Your task to perform on an android device: check android version Image 0: 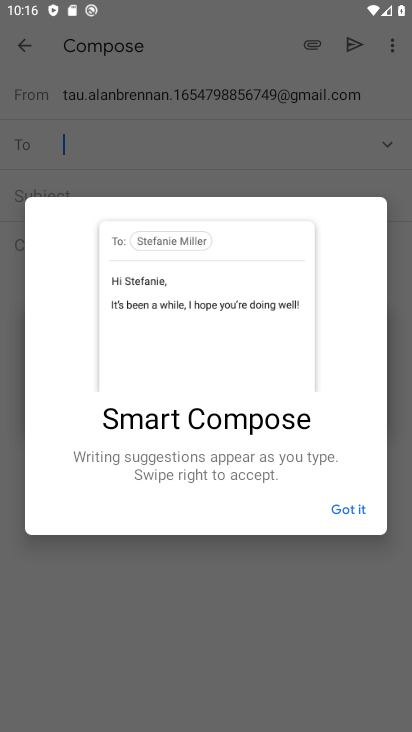
Step 0: press home button
Your task to perform on an android device: check android version Image 1: 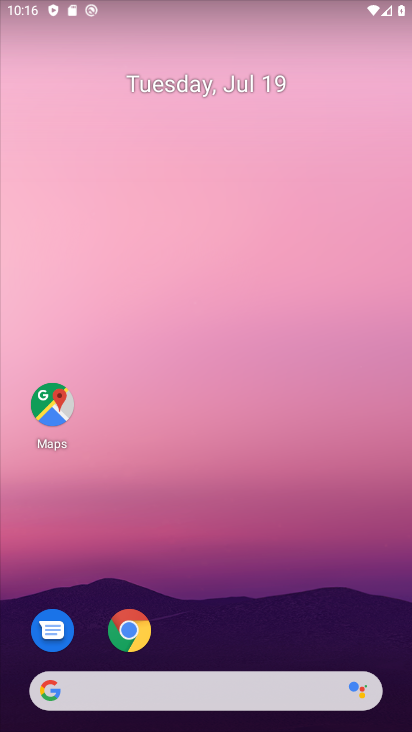
Step 1: drag from (178, 212) to (178, 143)
Your task to perform on an android device: check android version Image 2: 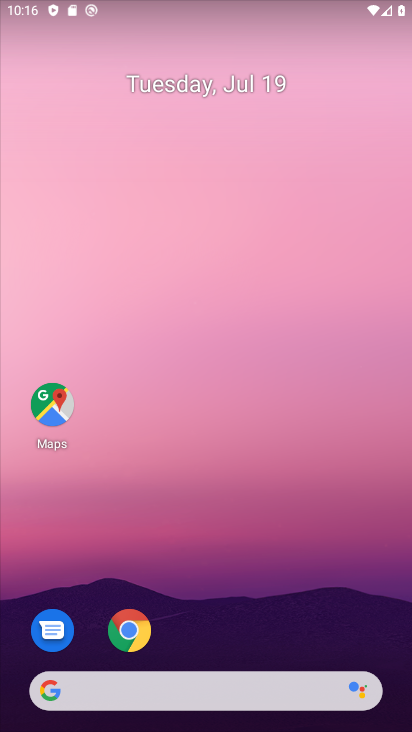
Step 2: drag from (161, 662) to (161, 136)
Your task to perform on an android device: check android version Image 3: 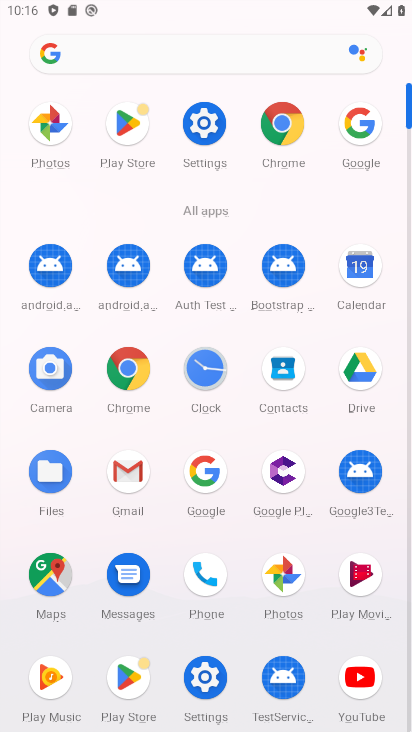
Step 3: click (200, 128)
Your task to perform on an android device: check android version Image 4: 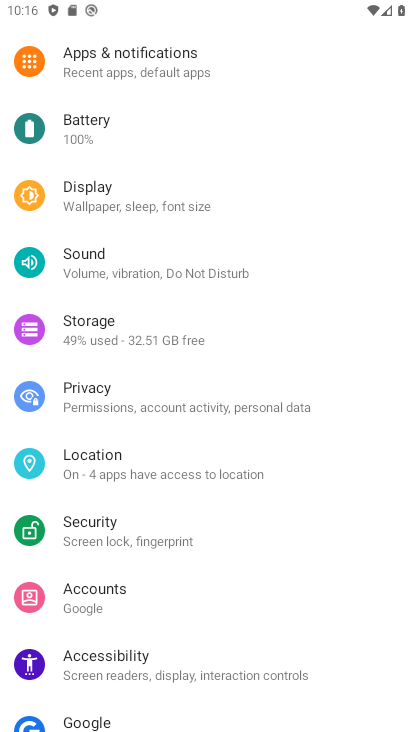
Step 4: drag from (128, 724) to (127, 228)
Your task to perform on an android device: check android version Image 5: 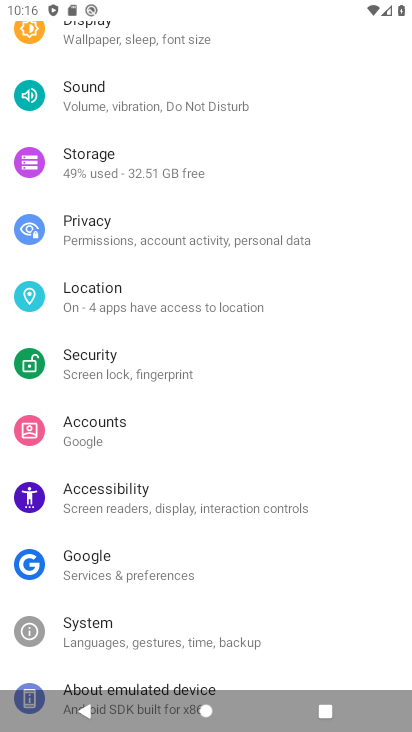
Step 5: drag from (133, 656) to (126, 273)
Your task to perform on an android device: check android version Image 6: 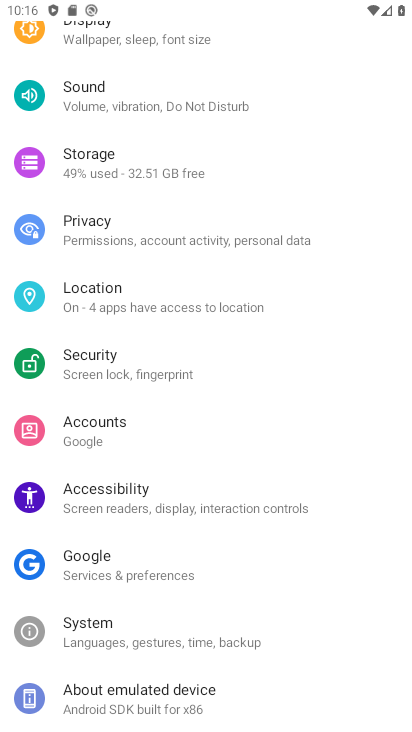
Step 6: click (130, 704)
Your task to perform on an android device: check android version Image 7: 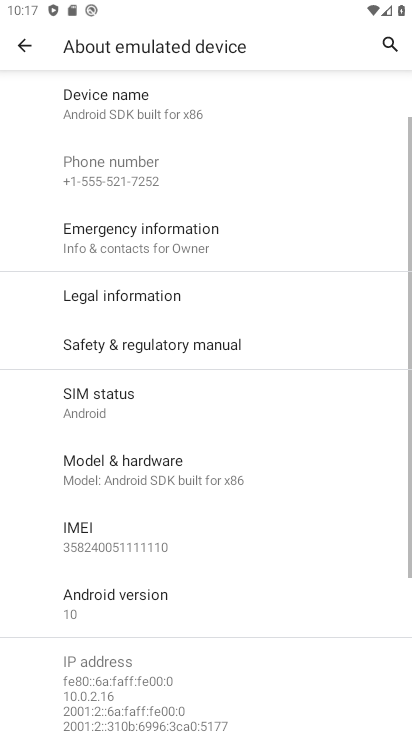
Step 7: click (114, 605)
Your task to perform on an android device: check android version Image 8: 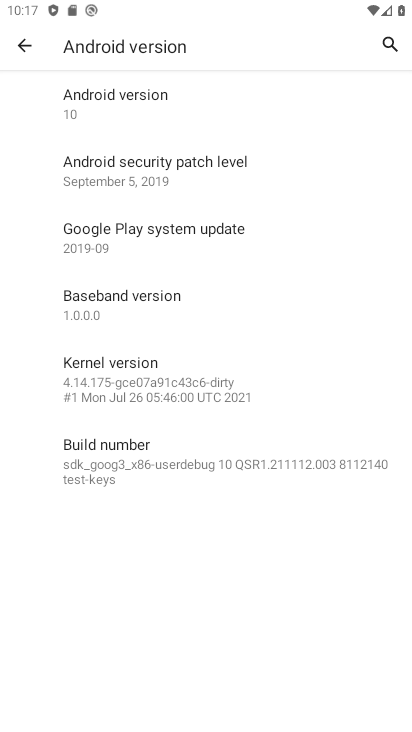
Step 8: task complete